Your task to perform on an android device: Open Google Maps and go to "Timeline" Image 0: 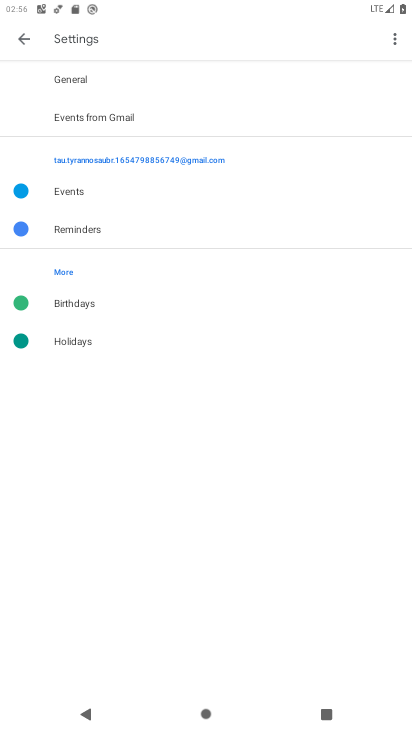
Step 0: press home button
Your task to perform on an android device: Open Google Maps and go to "Timeline" Image 1: 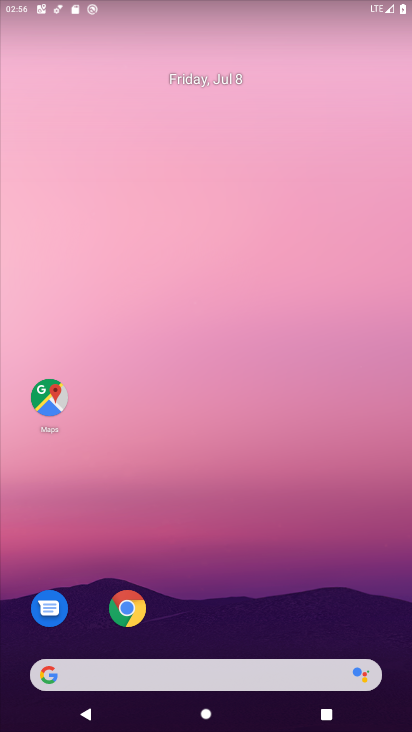
Step 1: drag from (261, 665) to (253, 337)
Your task to perform on an android device: Open Google Maps and go to "Timeline" Image 2: 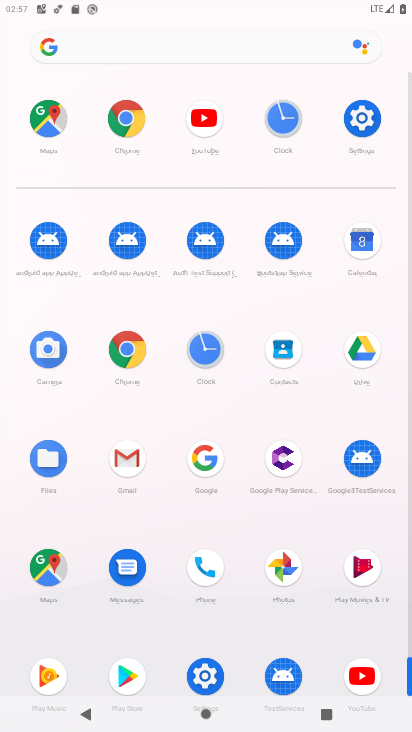
Step 2: click (43, 562)
Your task to perform on an android device: Open Google Maps and go to "Timeline" Image 3: 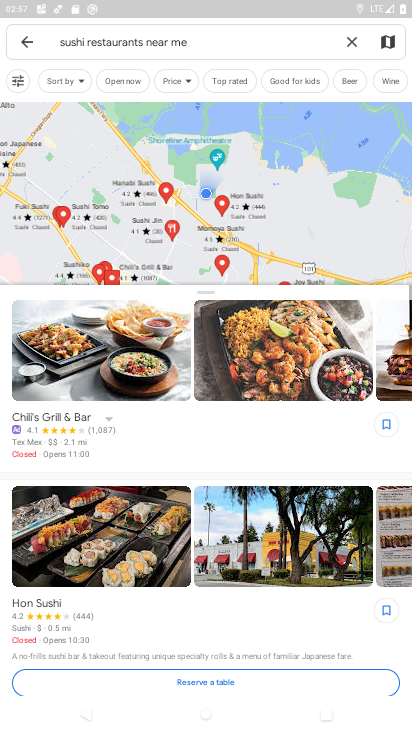
Step 3: click (343, 35)
Your task to perform on an android device: Open Google Maps and go to "Timeline" Image 4: 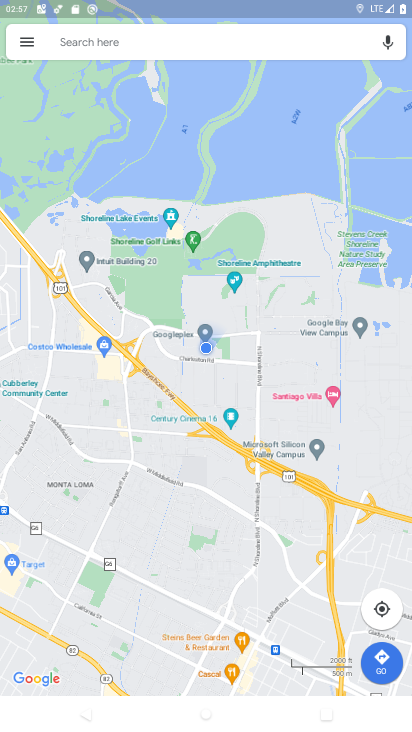
Step 4: click (30, 39)
Your task to perform on an android device: Open Google Maps and go to "Timeline" Image 5: 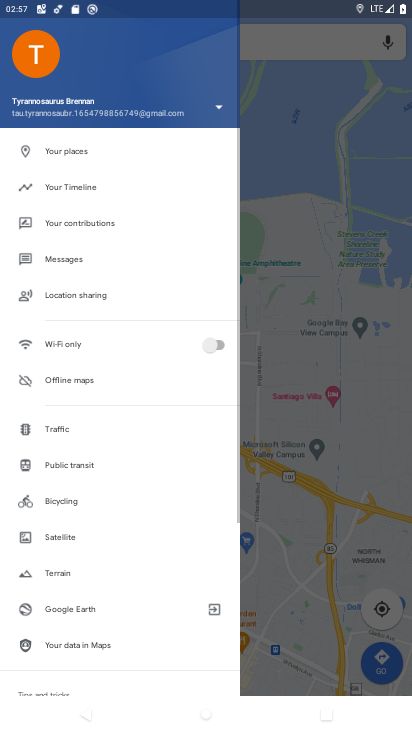
Step 5: click (70, 194)
Your task to perform on an android device: Open Google Maps and go to "Timeline" Image 6: 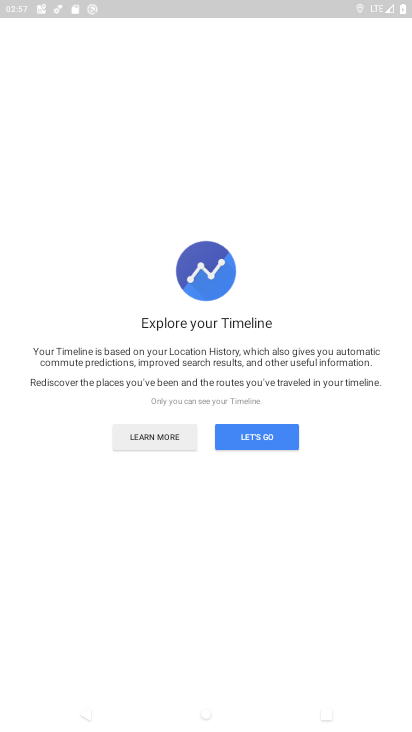
Step 6: click (241, 440)
Your task to perform on an android device: Open Google Maps and go to "Timeline" Image 7: 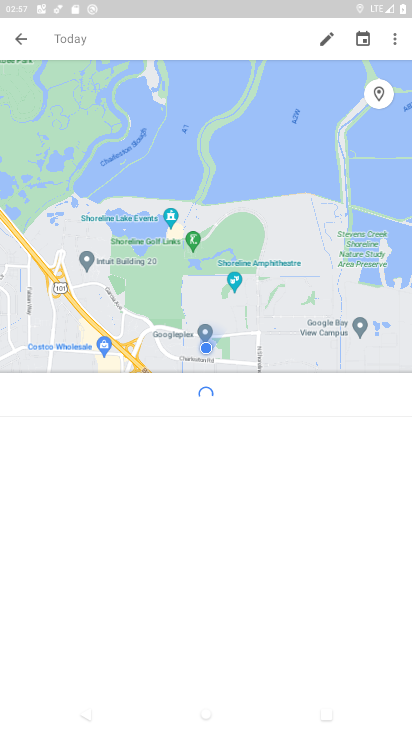
Step 7: task complete